Your task to perform on an android device: open app "Calculator" Image 0: 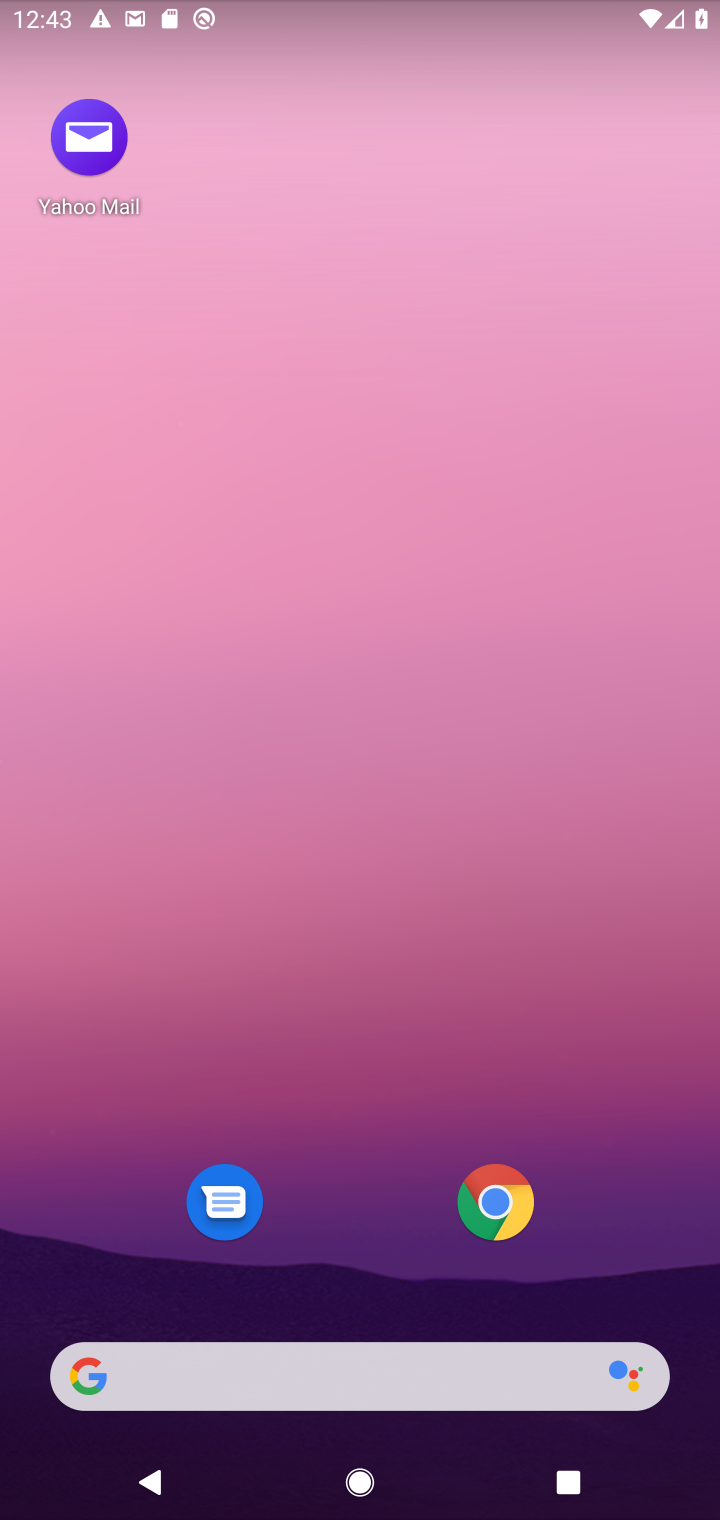
Step 0: drag from (349, 1210) to (335, 44)
Your task to perform on an android device: open app "Calculator" Image 1: 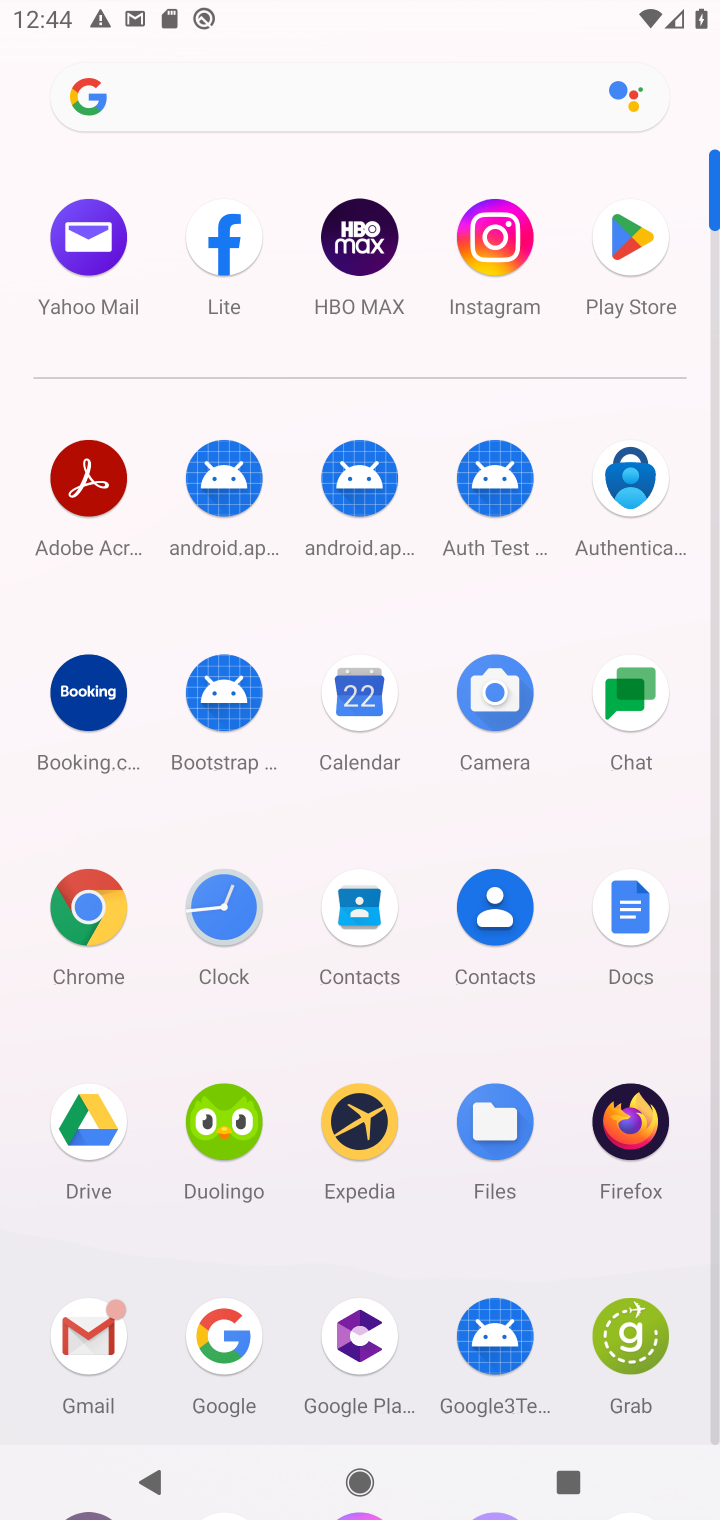
Step 1: click (624, 226)
Your task to perform on an android device: open app "Calculator" Image 2: 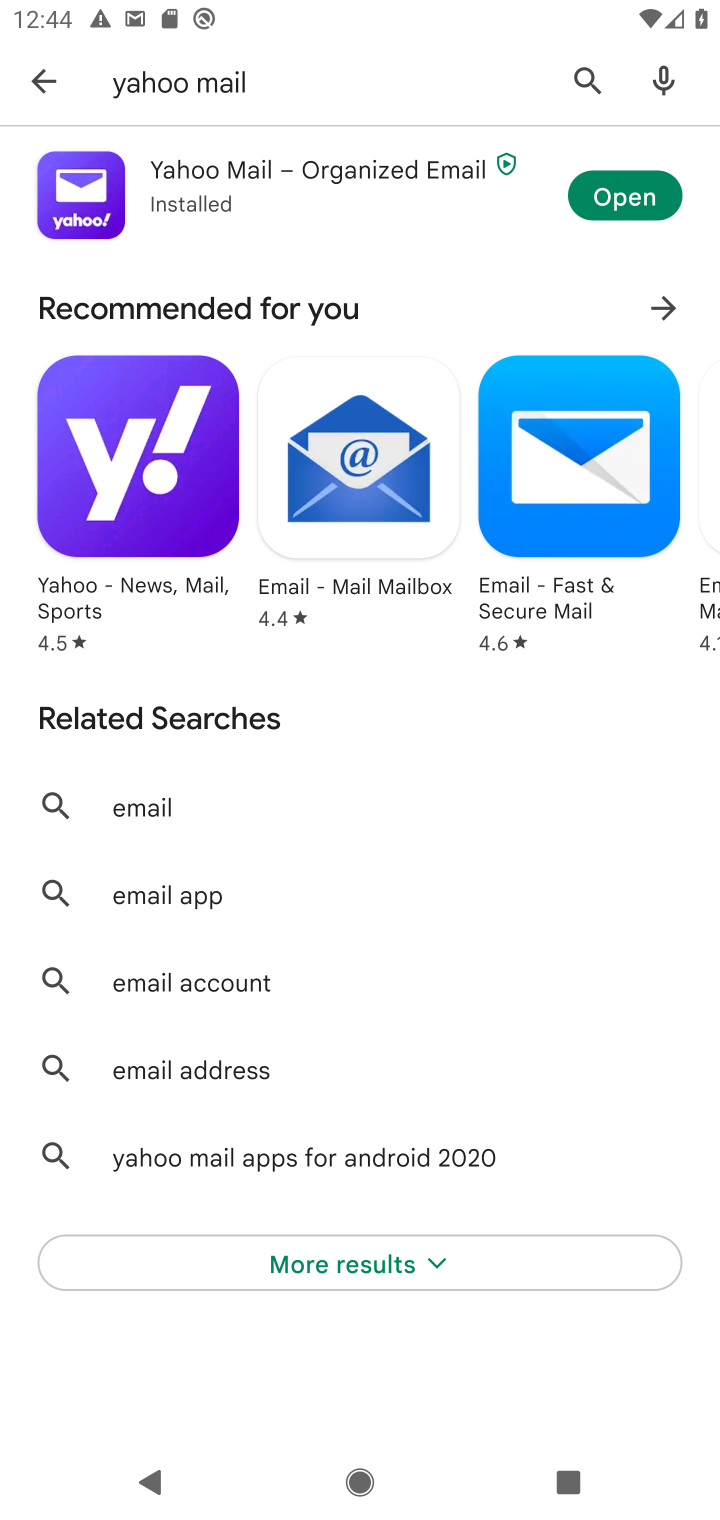
Step 2: click (587, 80)
Your task to perform on an android device: open app "Calculator" Image 3: 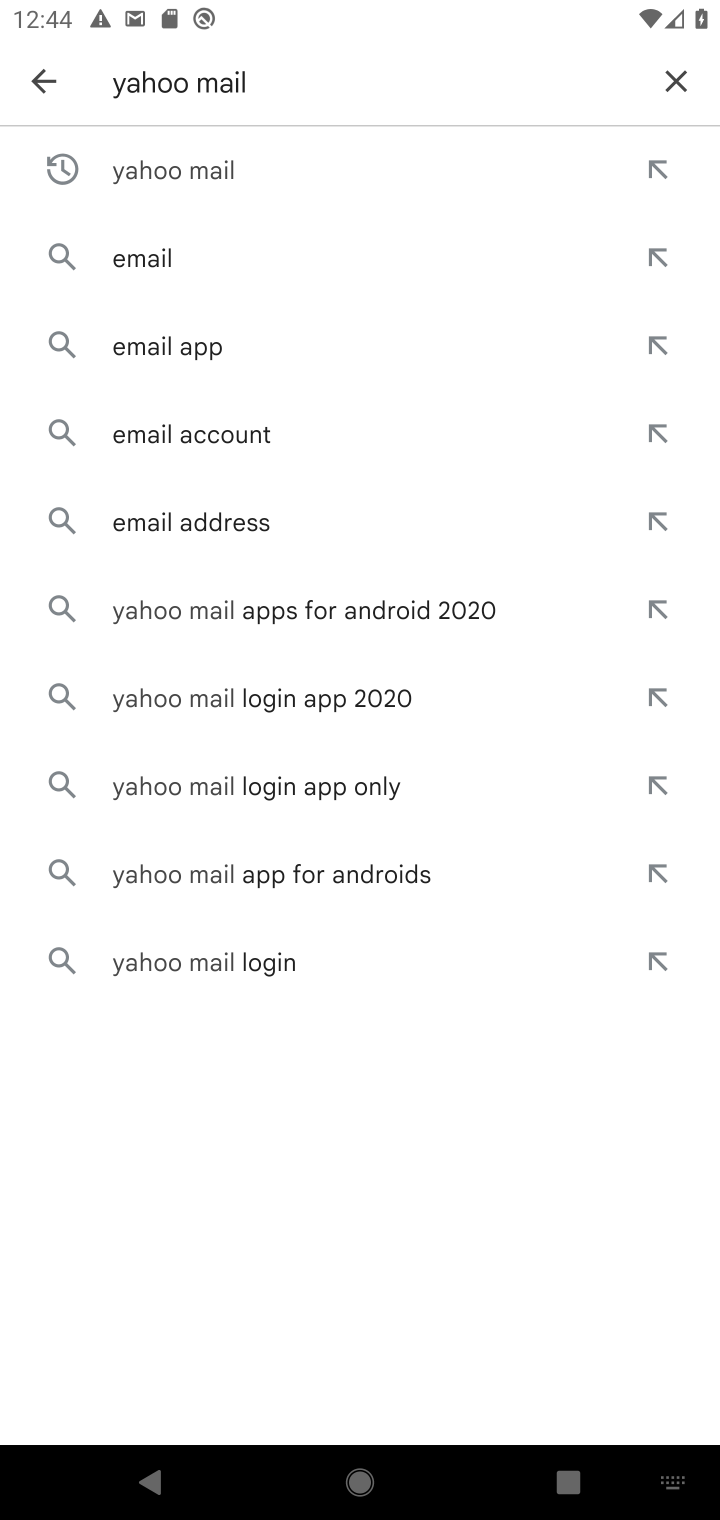
Step 3: click (672, 69)
Your task to perform on an android device: open app "Calculator" Image 4: 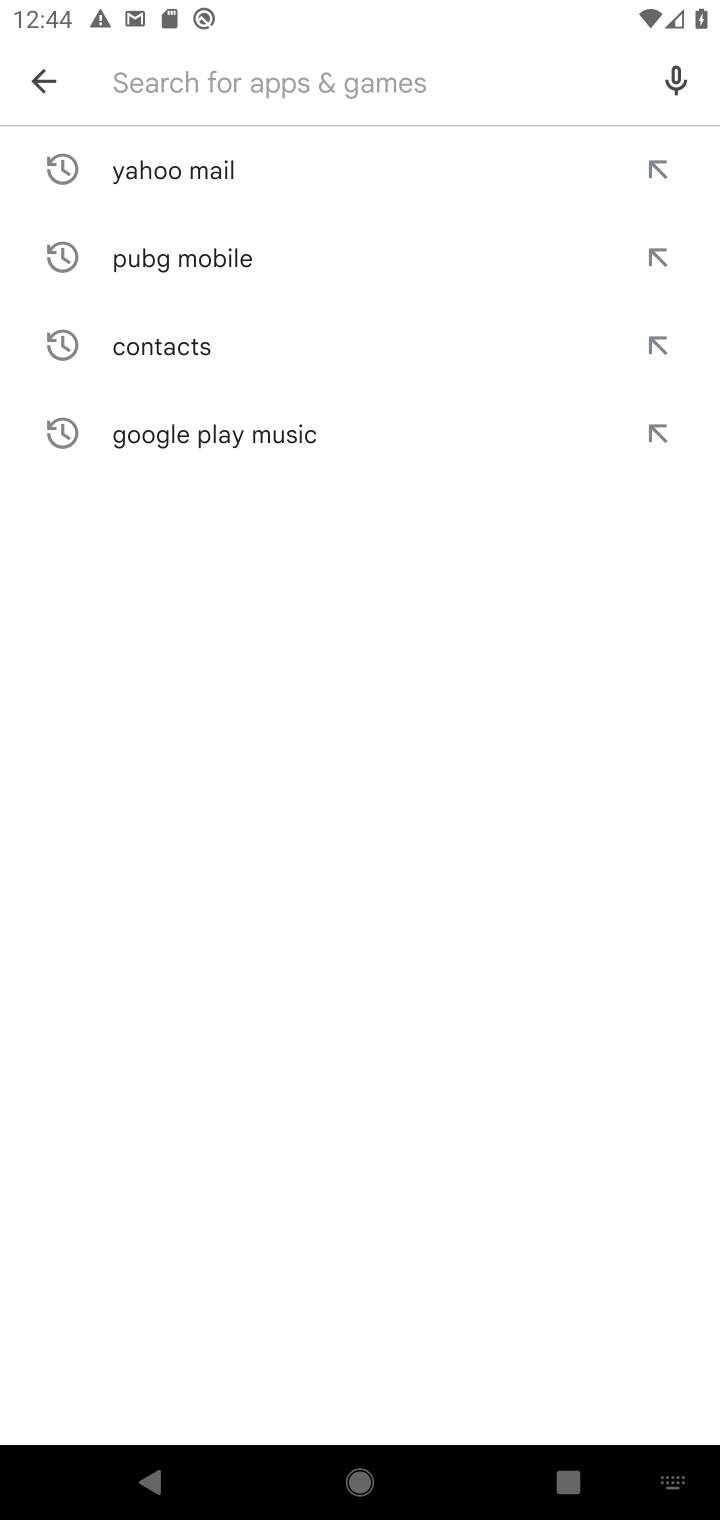
Step 4: type "Calculator"
Your task to perform on an android device: open app "Calculator" Image 5: 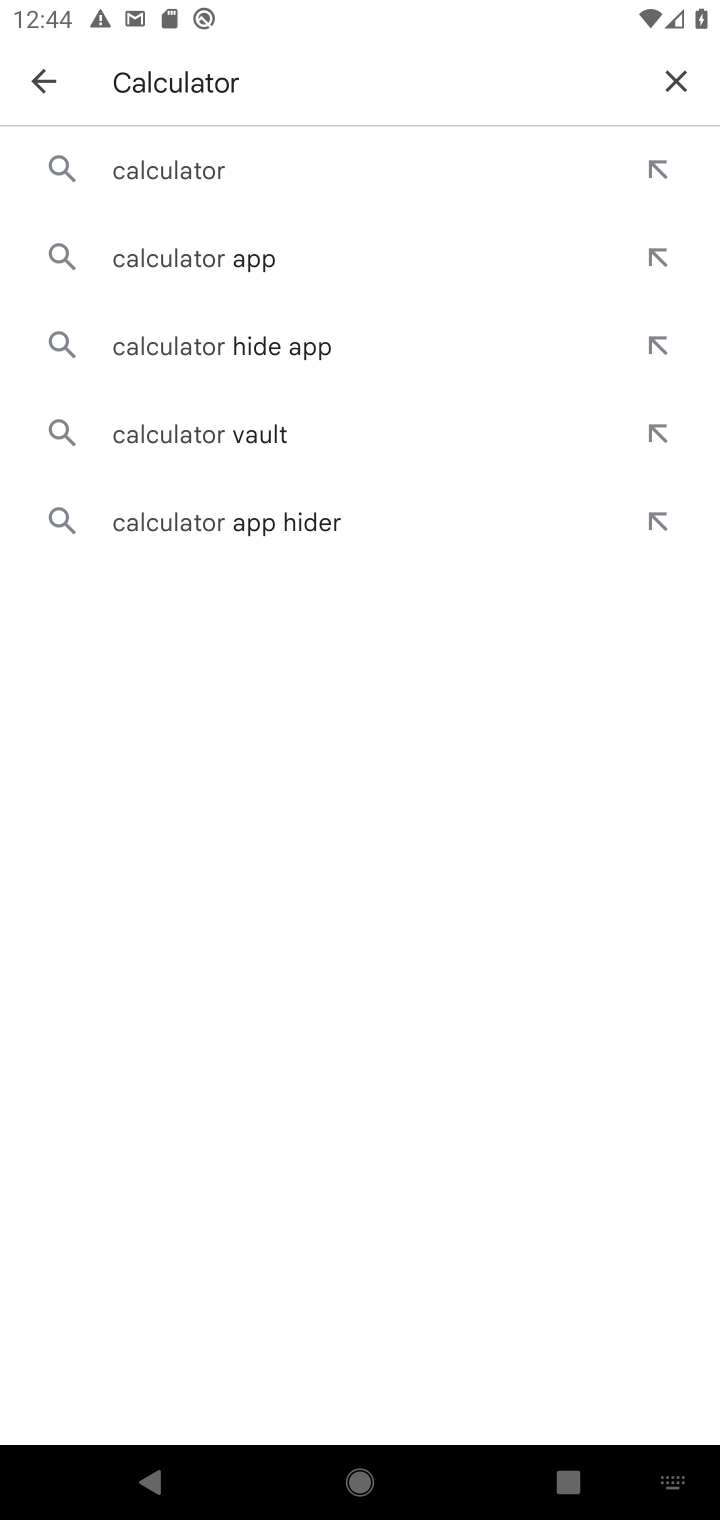
Step 5: click (171, 168)
Your task to perform on an android device: open app "Calculator" Image 6: 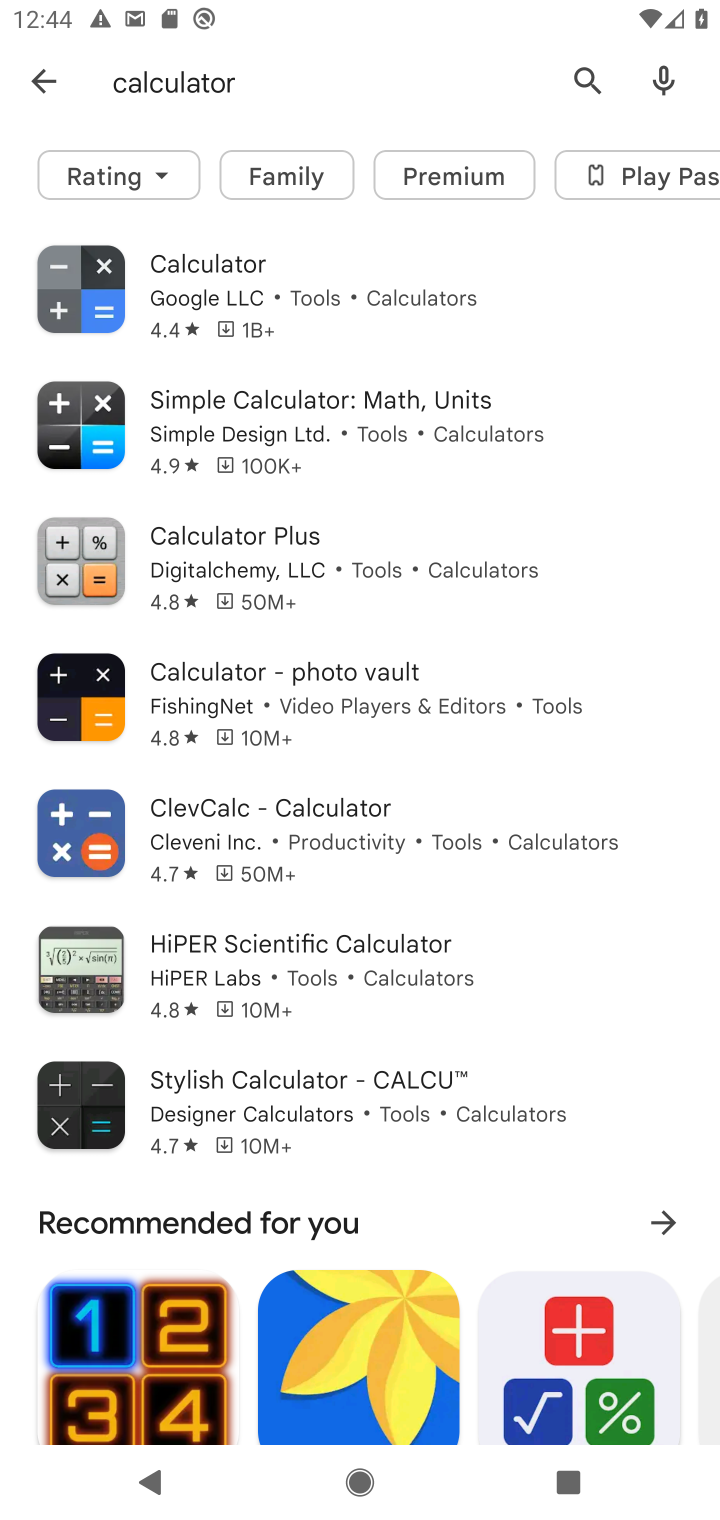
Step 6: click (208, 288)
Your task to perform on an android device: open app "Calculator" Image 7: 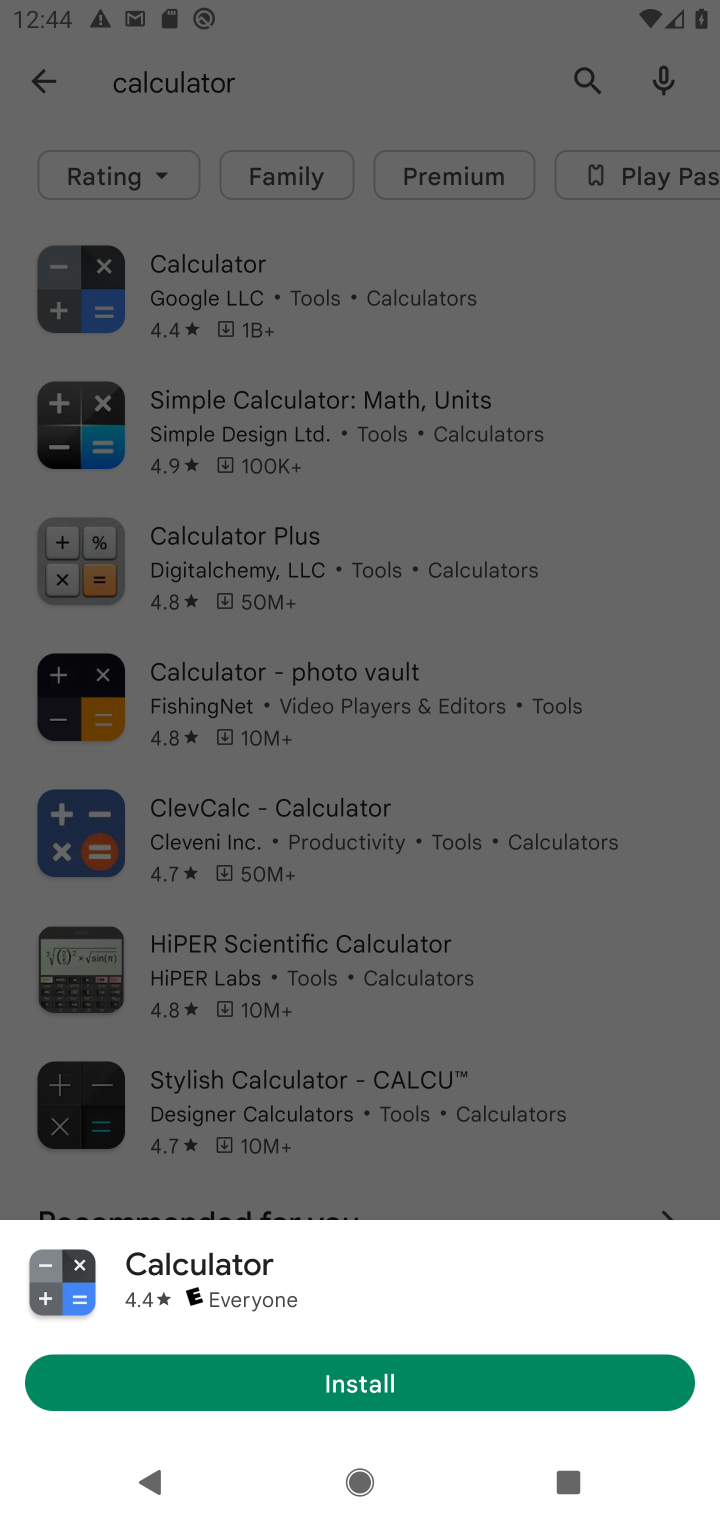
Step 7: click (277, 1383)
Your task to perform on an android device: open app "Calculator" Image 8: 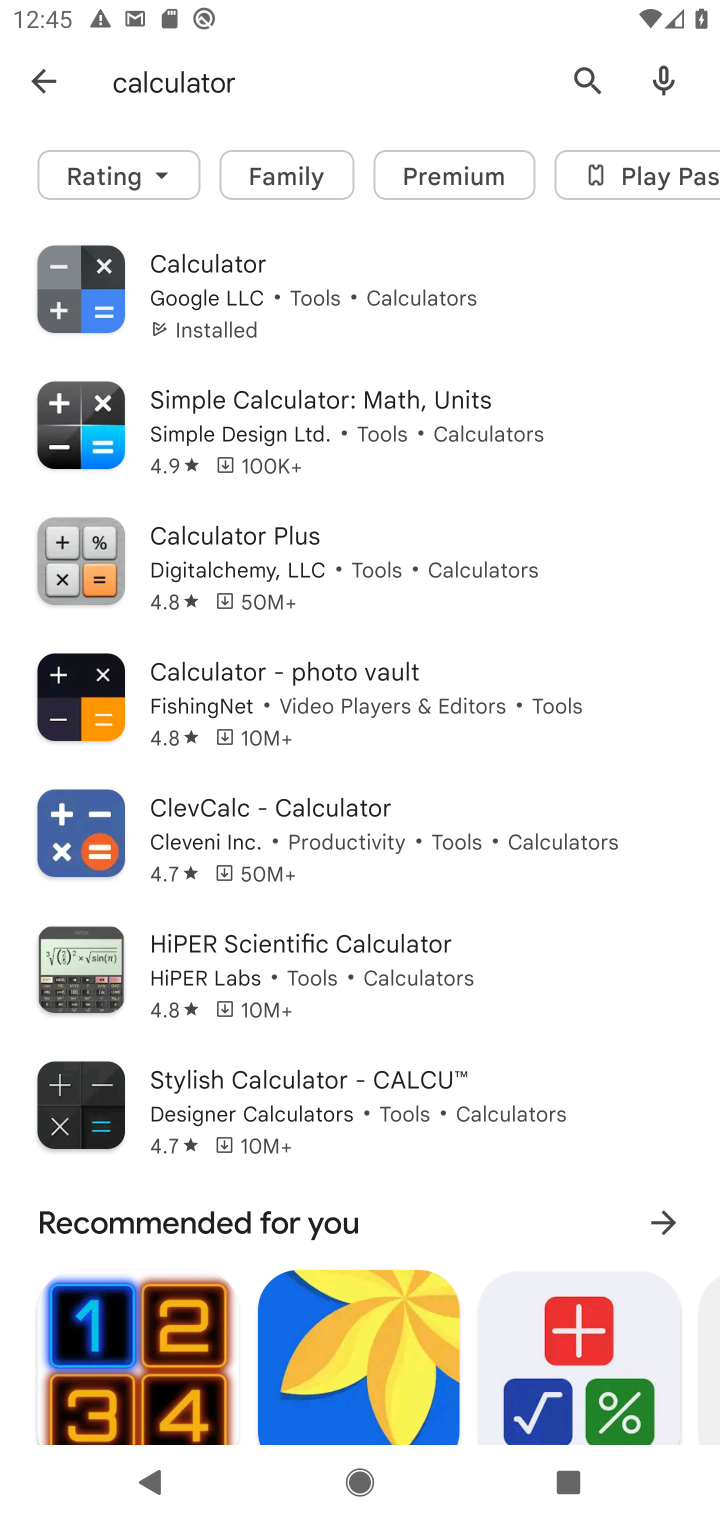
Step 8: click (241, 290)
Your task to perform on an android device: open app "Calculator" Image 9: 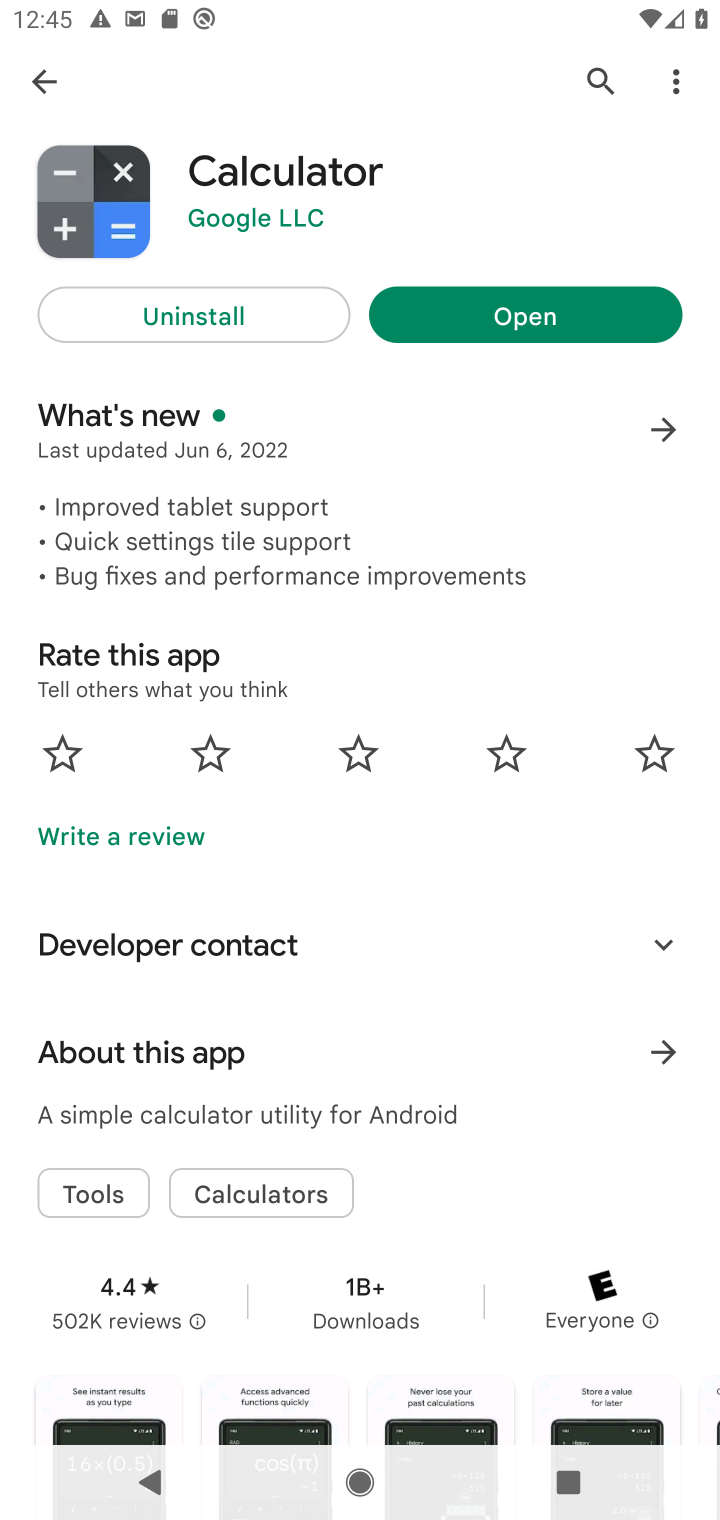
Step 9: click (548, 306)
Your task to perform on an android device: open app "Calculator" Image 10: 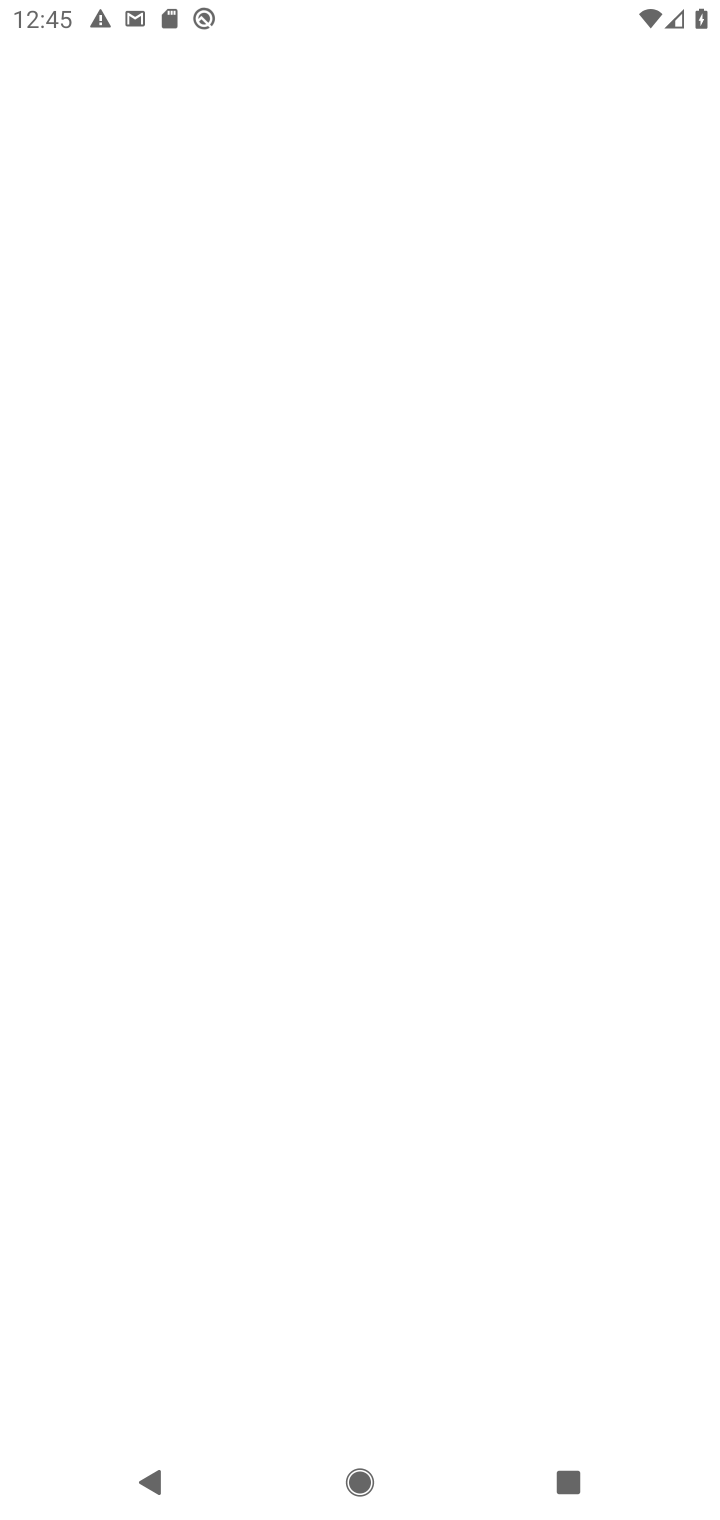
Step 10: click (548, 306)
Your task to perform on an android device: open app "Calculator" Image 11: 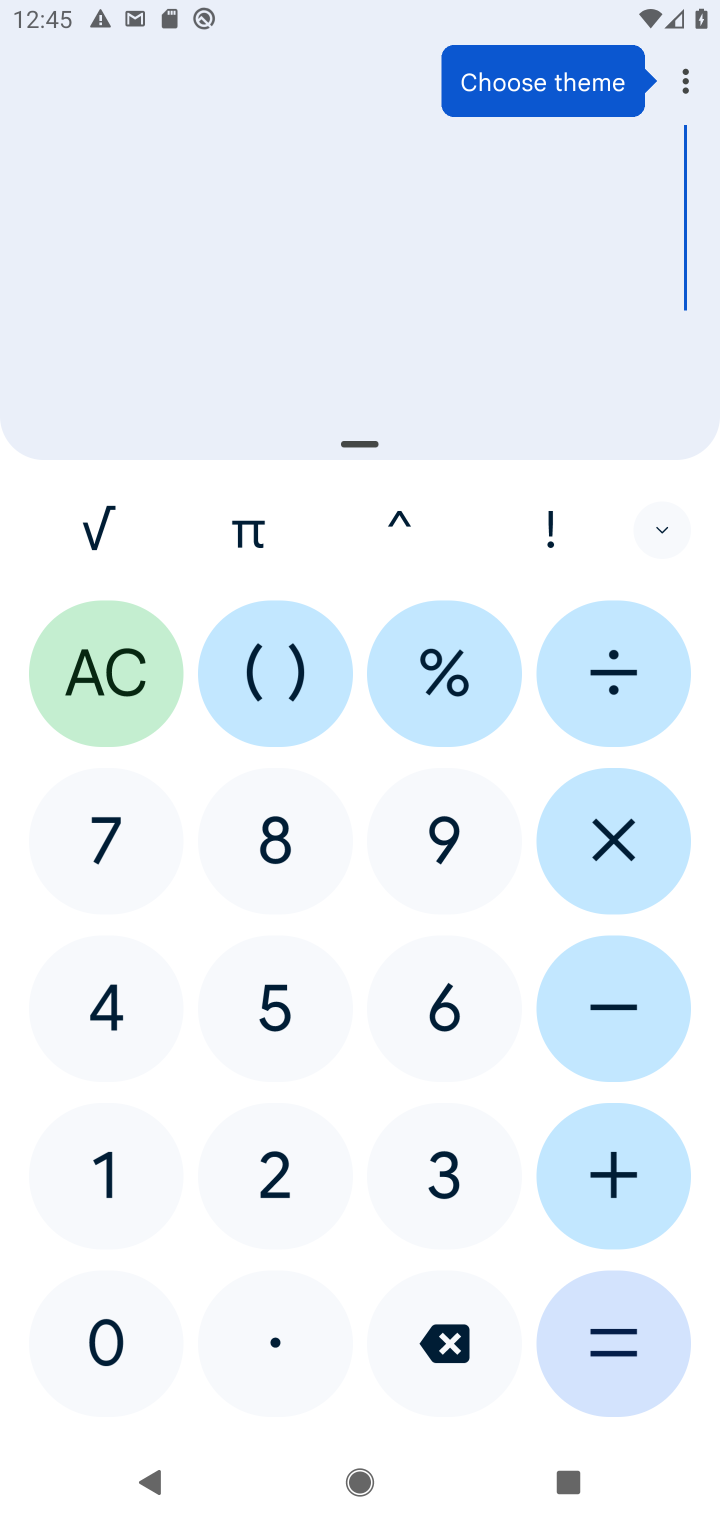
Step 11: task complete